Your task to perform on an android device: Open calendar and show me the second week of next month Image 0: 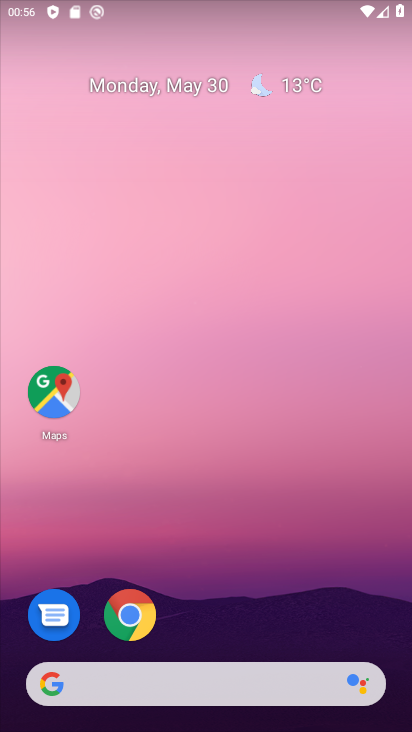
Step 0: drag from (207, 667) to (156, 51)
Your task to perform on an android device: Open calendar and show me the second week of next month Image 1: 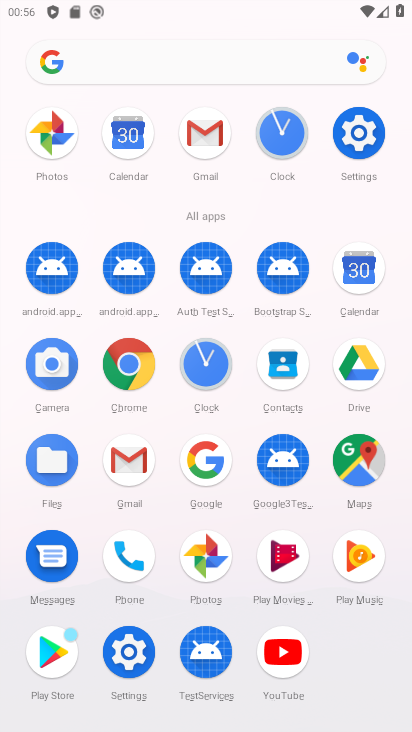
Step 1: click (353, 272)
Your task to perform on an android device: Open calendar and show me the second week of next month Image 2: 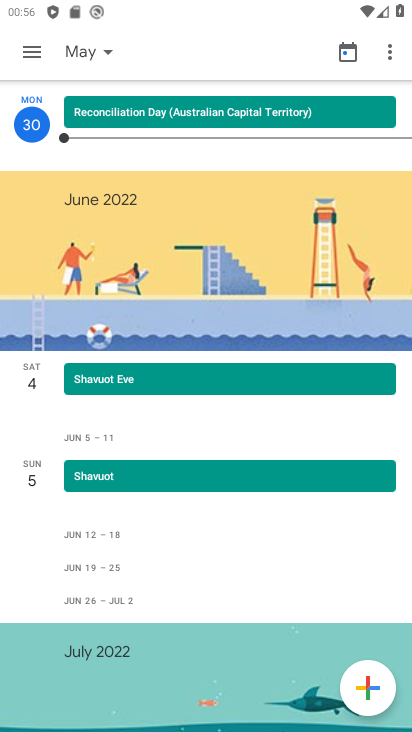
Step 2: click (24, 54)
Your task to perform on an android device: Open calendar and show me the second week of next month Image 3: 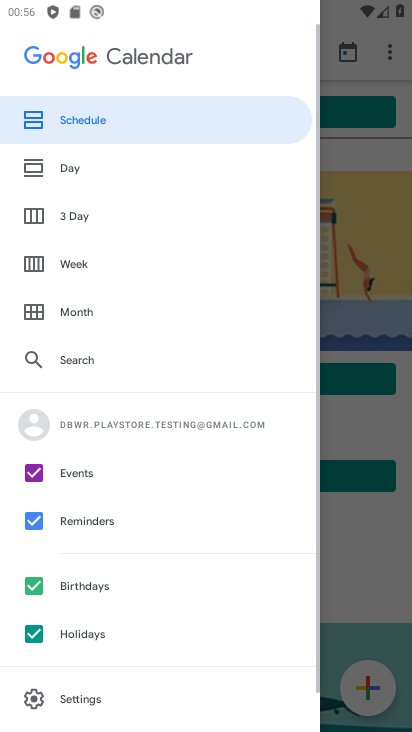
Step 3: click (71, 263)
Your task to perform on an android device: Open calendar and show me the second week of next month Image 4: 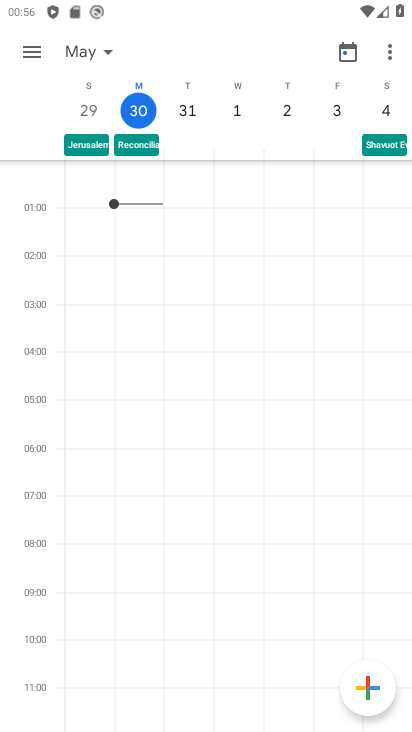
Step 4: task complete